Your task to perform on an android device: Open network settings Image 0: 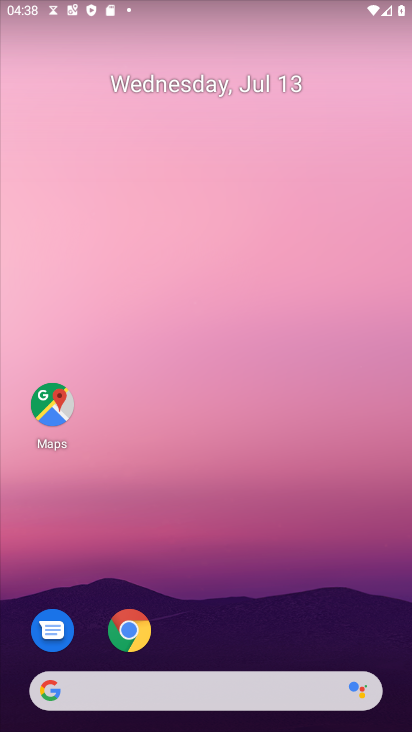
Step 0: drag from (290, 638) to (318, 54)
Your task to perform on an android device: Open network settings Image 1: 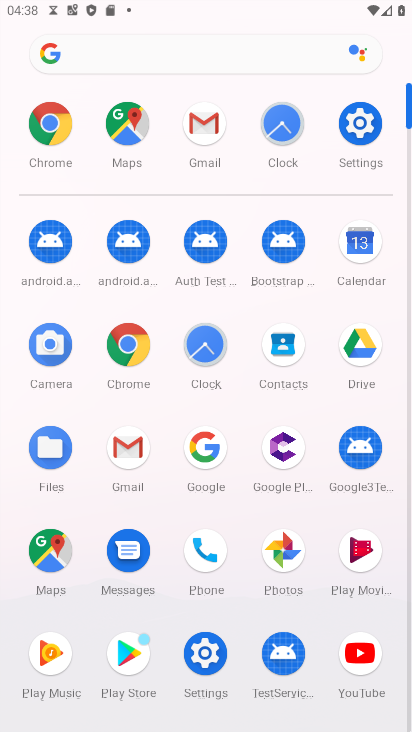
Step 1: click (361, 128)
Your task to perform on an android device: Open network settings Image 2: 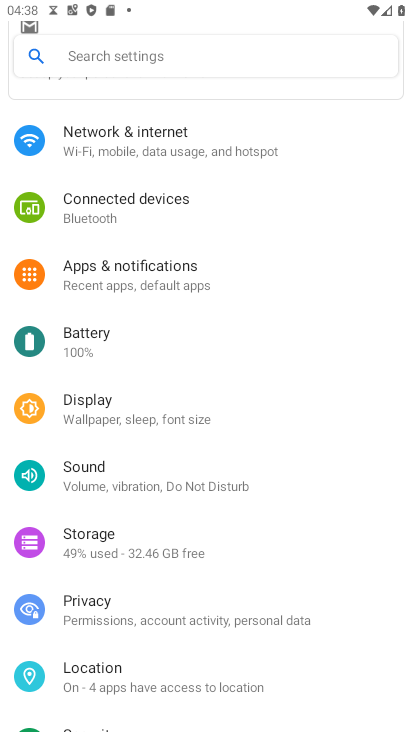
Step 2: click (183, 160)
Your task to perform on an android device: Open network settings Image 3: 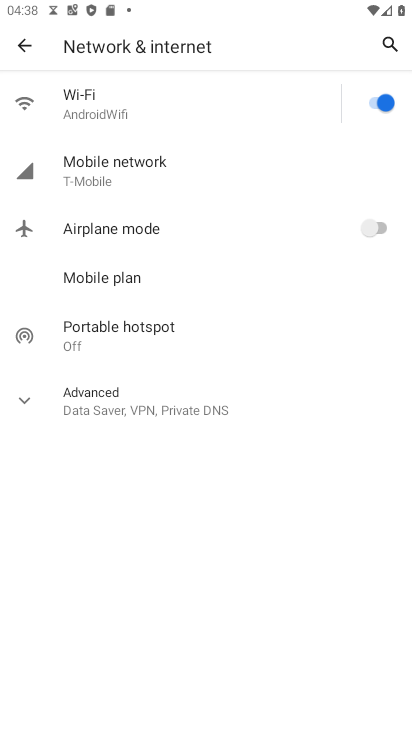
Step 3: task complete